Your task to perform on an android device: snooze an email in the gmail app Image 0: 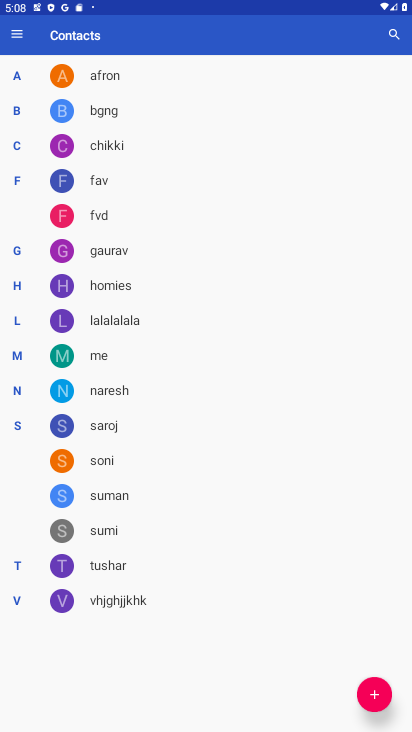
Step 0: press back button
Your task to perform on an android device: snooze an email in the gmail app Image 1: 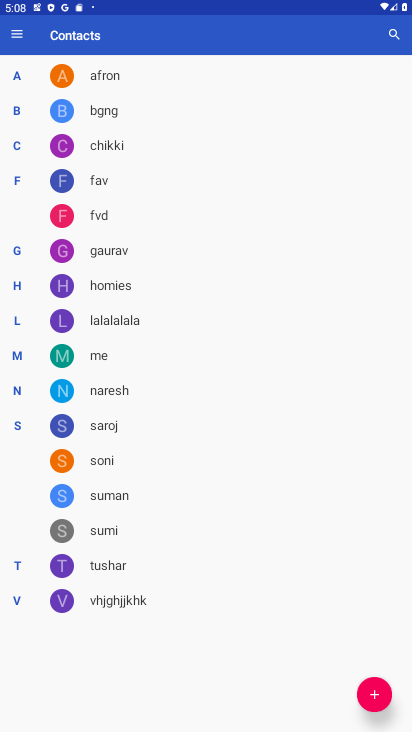
Step 1: press back button
Your task to perform on an android device: snooze an email in the gmail app Image 2: 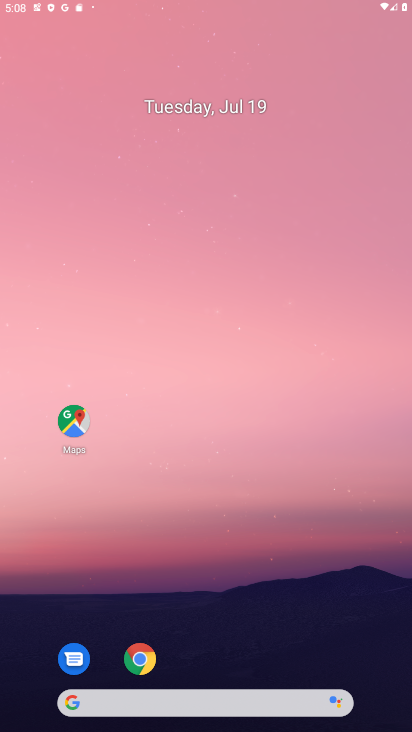
Step 2: press back button
Your task to perform on an android device: snooze an email in the gmail app Image 3: 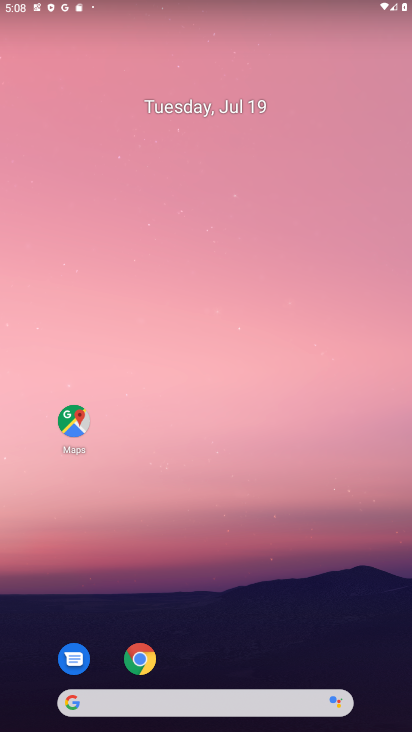
Step 3: drag from (236, 598) to (188, 52)
Your task to perform on an android device: snooze an email in the gmail app Image 4: 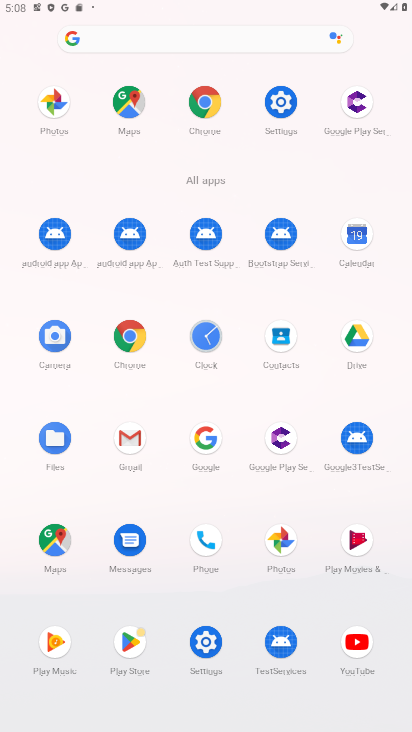
Step 4: click (138, 423)
Your task to perform on an android device: snooze an email in the gmail app Image 5: 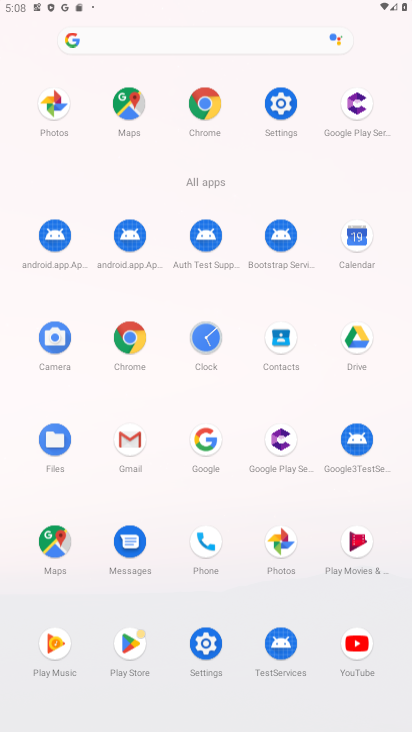
Step 5: click (133, 433)
Your task to perform on an android device: snooze an email in the gmail app Image 6: 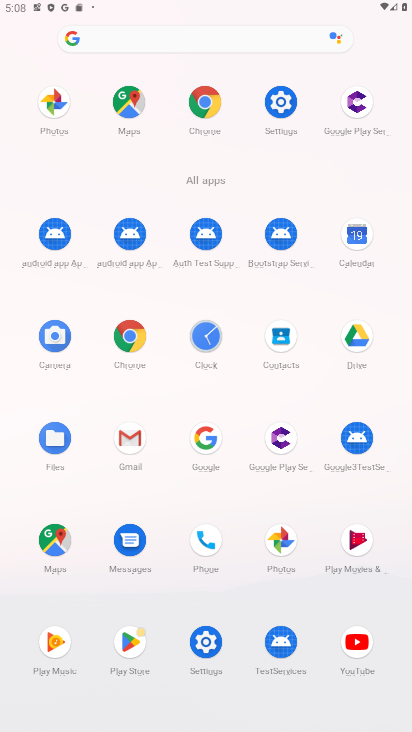
Step 6: click (133, 433)
Your task to perform on an android device: snooze an email in the gmail app Image 7: 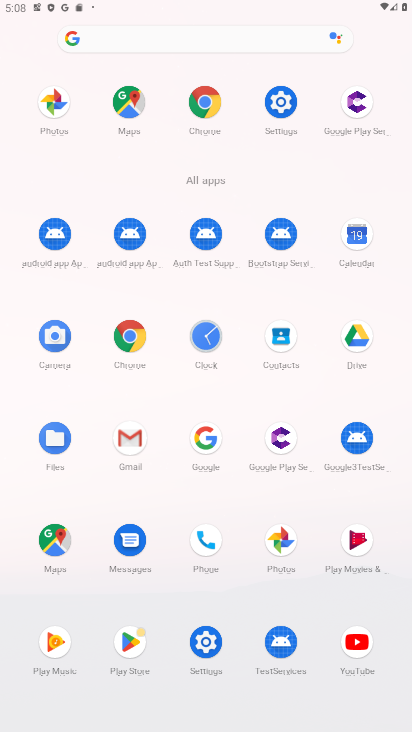
Step 7: click (133, 433)
Your task to perform on an android device: snooze an email in the gmail app Image 8: 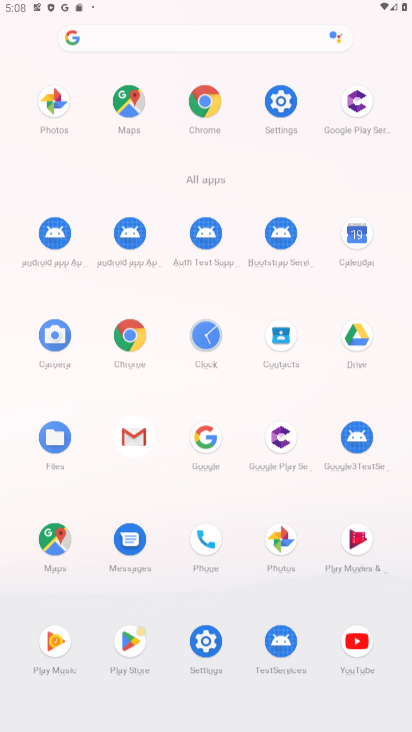
Step 8: click (130, 437)
Your task to perform on an android device: snooze an email in the gmail app Image 9: 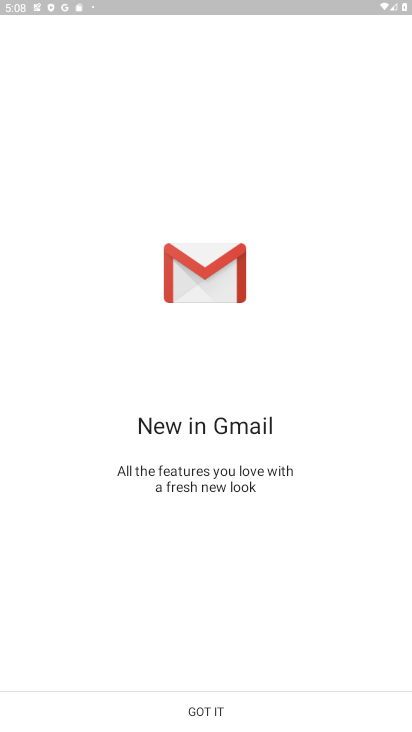
Step 9: click (129, 430)
Your task to perform on an android device: snooze an email in the gmail app Image 10: 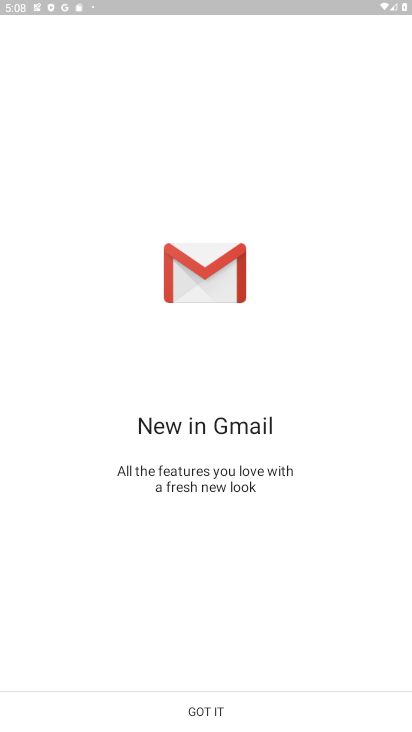
Step 10: click (129, 431)
Your task to perform on an android device: snooze an email in the gmail app Image 11: 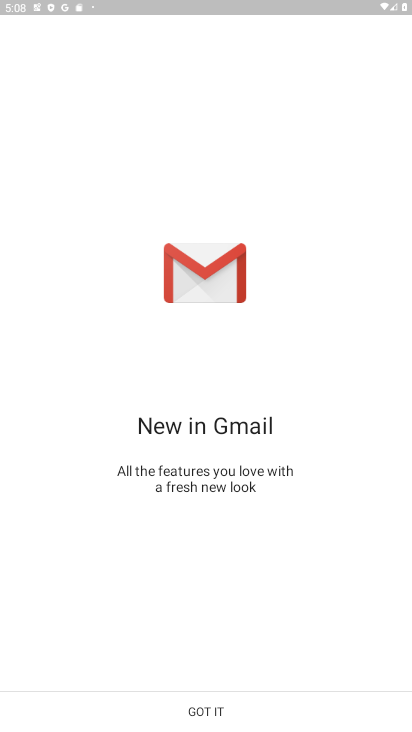
Step 11: click (130, 432)
Your task to perform on an android device: snooze an email in the gmail app Image 12: 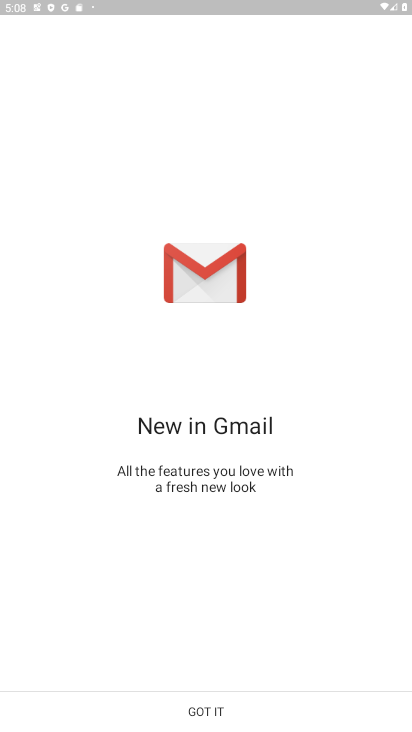
Step 12: click (207, 710)
Your task to perform on an android device: snooze an email in the gmail app Image 13: 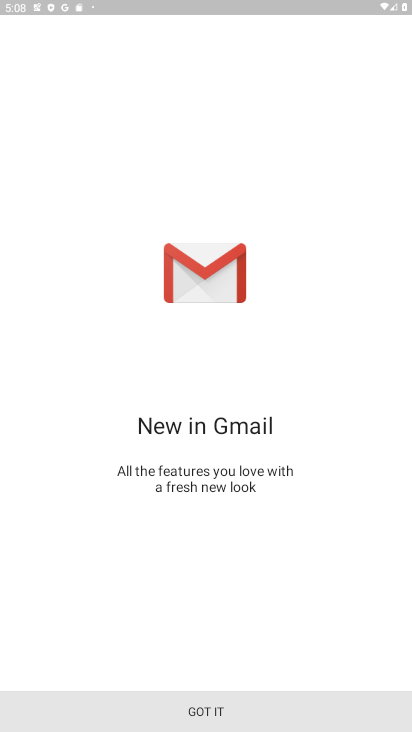
Step 13: click (209, 707)
Your task to perform on an android device: snooze an email in the gmail app Image 14: 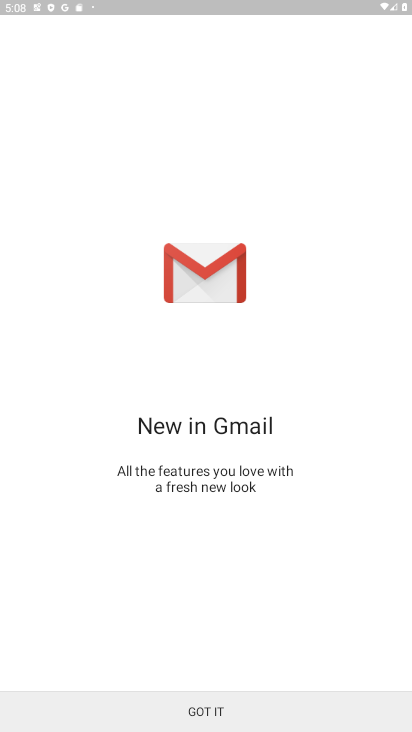
Step 14: click (211, 701)
Your task to perform on an android device: snooze an email in the gmail app Image 15: 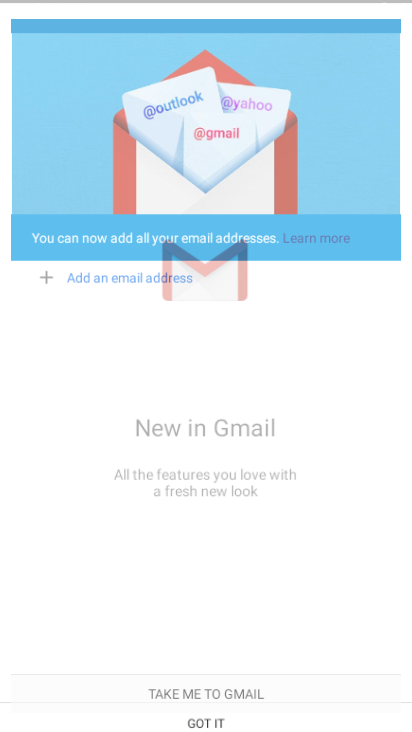
Step 15: click (211, 694)
Your task to perform on an android device: snooze an email in the gmail app Image 16: 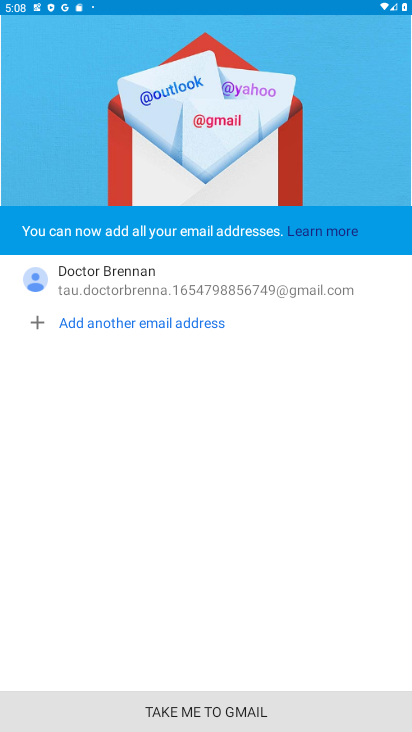
Step 16: click (211, 694)
Your task to perform on an android device: snooze an email in the gmail app Image 17: 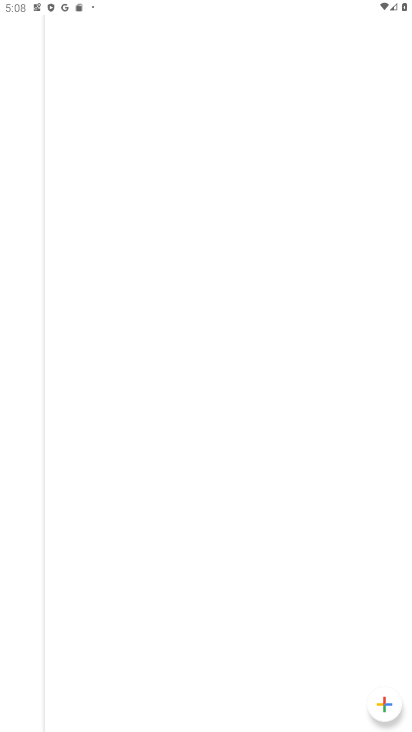
Step 17: click (239, 715)
Your task to perform on an android device: snooze an email in the gmail app Image 18: 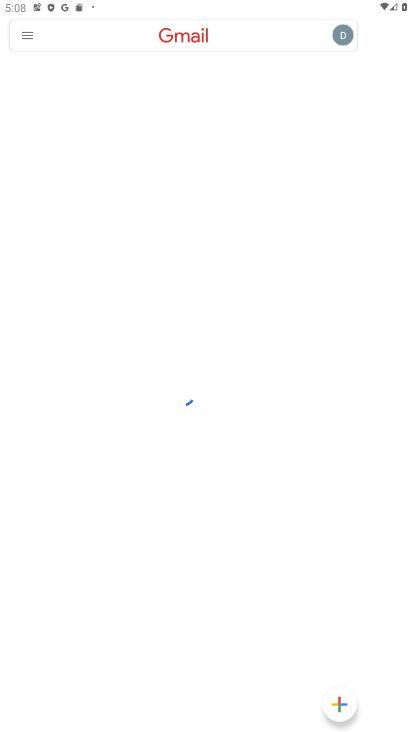
Step 18: click (35, 32)
Your task to perform on an android device: snooze an email in the gmail app Image 19: 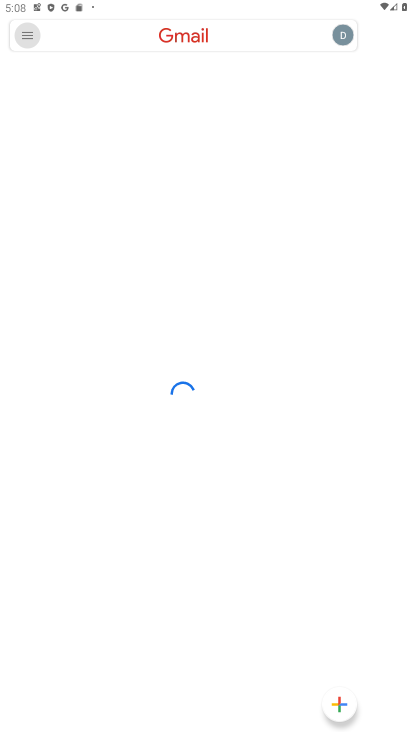
Step 19: click (34, 33)
Your task to perform on an android device: snooze an email in the gmail app Image 20: 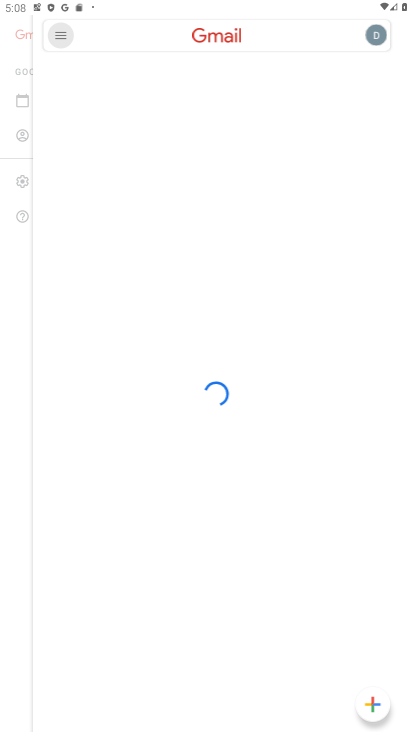
Step 20: click (34, 33)
Your task to perform on an android device: snooze an email in the gmail app Image 21: 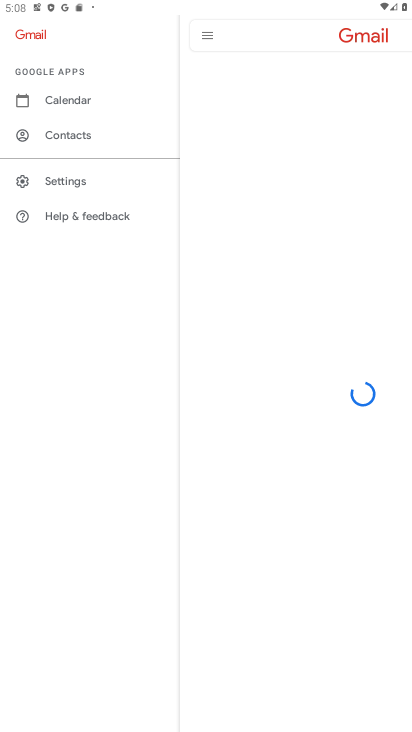
Step 21: click (34, 33)
Your task to perform on an android device: snooze an email in the gmail app Image 22: 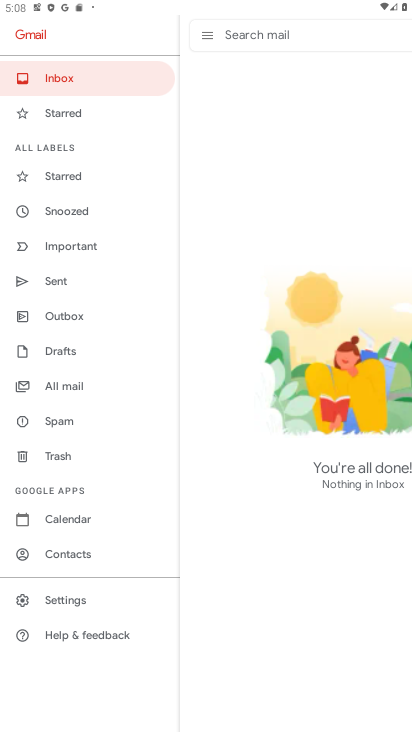
Step 22: click (61, 387)
Your task to perform on an android device: snooze an email in the gmail app Image 23: 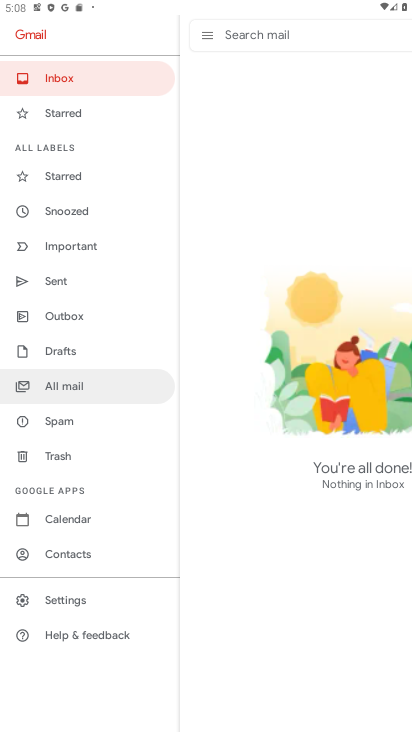
Step 23: click (61, 386)
Your task to perform on an android device: snooze an email in the gmail app Image 24: 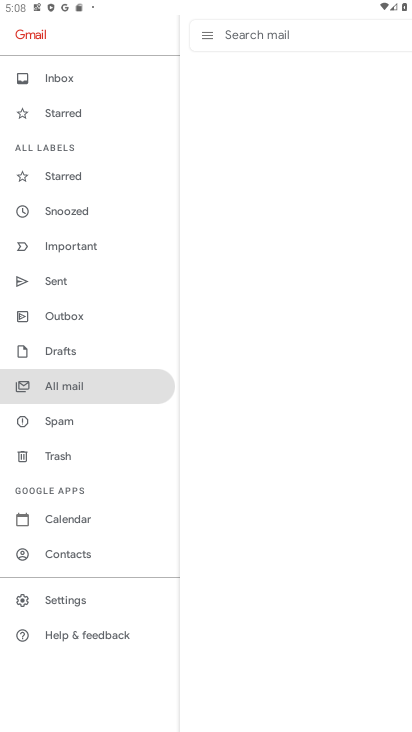
Step 24: click (61, 386)
Your task to perform on an android device: snooze an email in the gmail app Image 25: 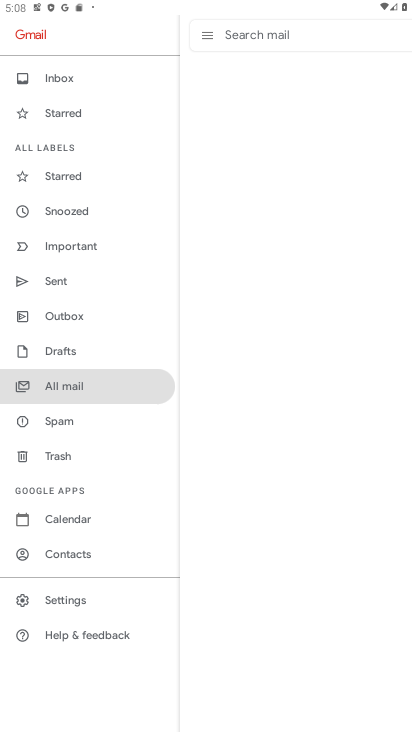
Step 25: click (61, 386)
Your task to perform on an android device: snooze an email in the gmail app Image 26: 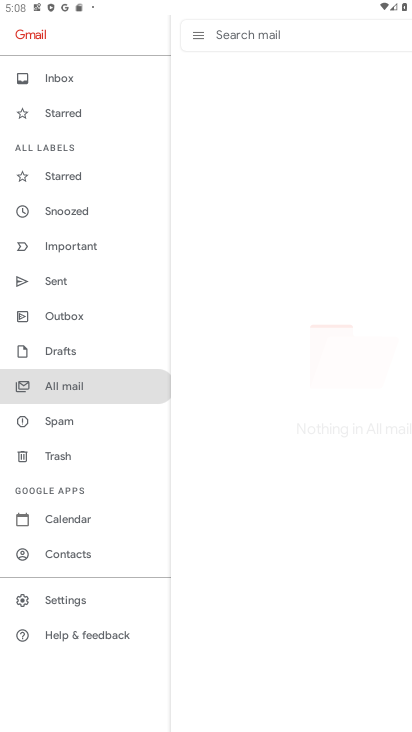
Step 26: click (61, 386)
Your task to perform on an android device: snooze an email in the gmail app Image 27: 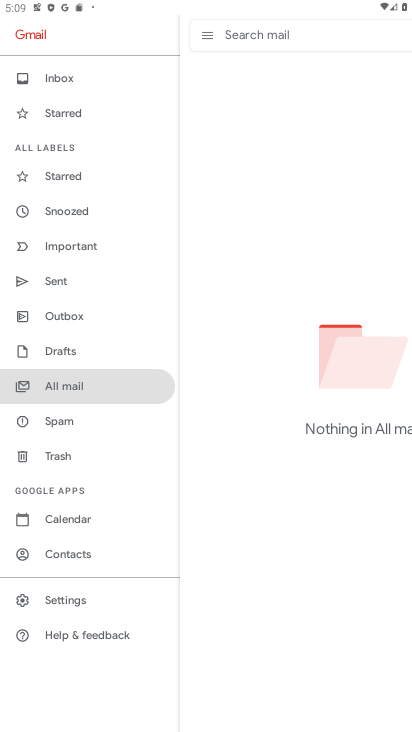
Step 27: task complete